Your task to perform on an android device: Open Wikipedia Image 0: 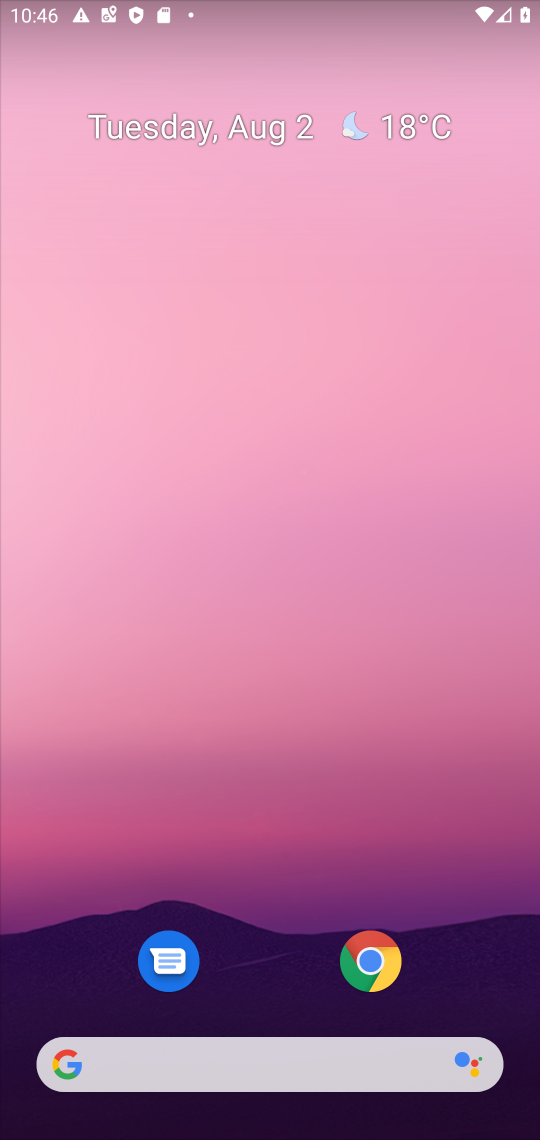
Step 0: press home button
Your task to perform on an android device: Open Wikipedia Image 1: 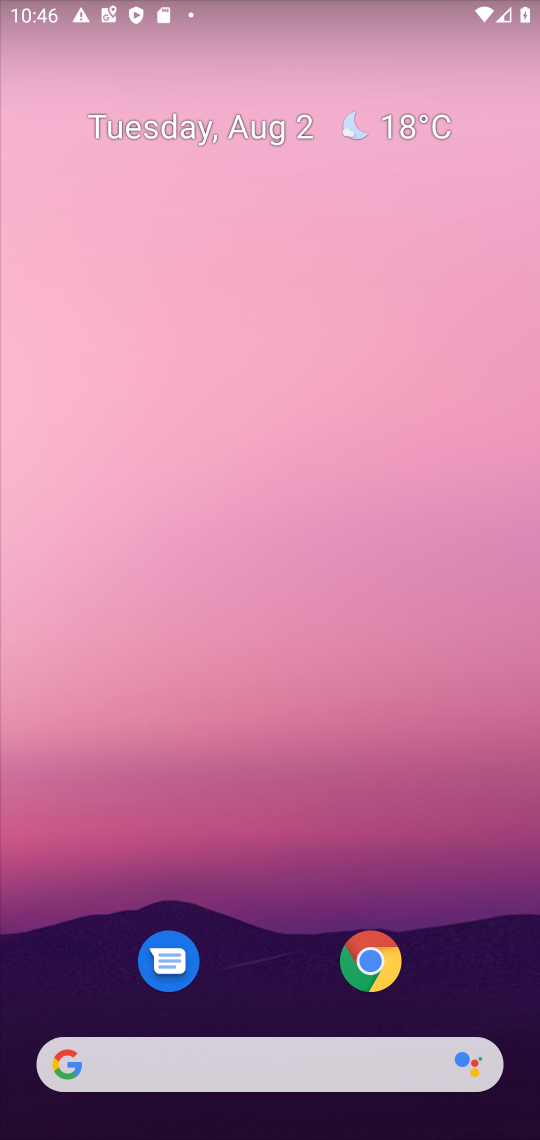
Step 1: drag from (319, 897) to (382, 90)
Your task to perform on an android device: Open Wikipedia Image 2: 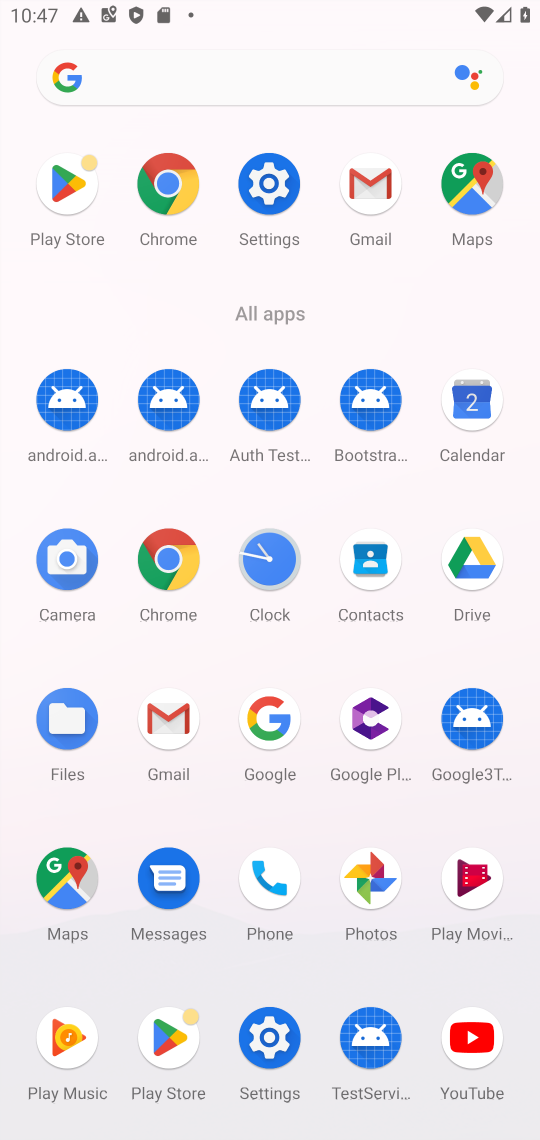
Step 2: click (181, 210)
Your task to perform on an android device: Open Wikipedia Image 3: 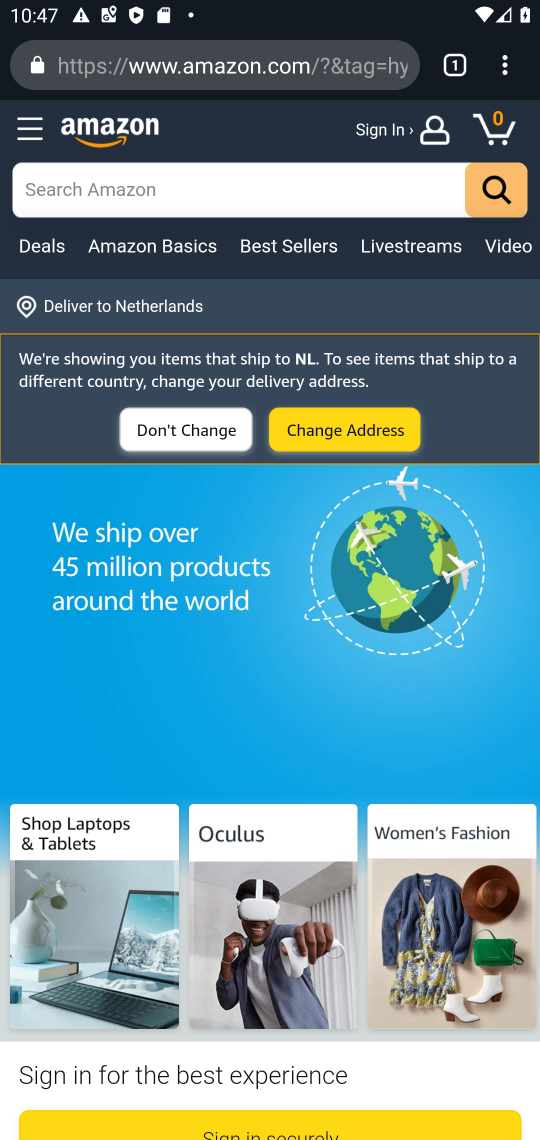
Step 3: click (252, 73)
Your task to perform on an android device: Open Wikipedia Image 4: 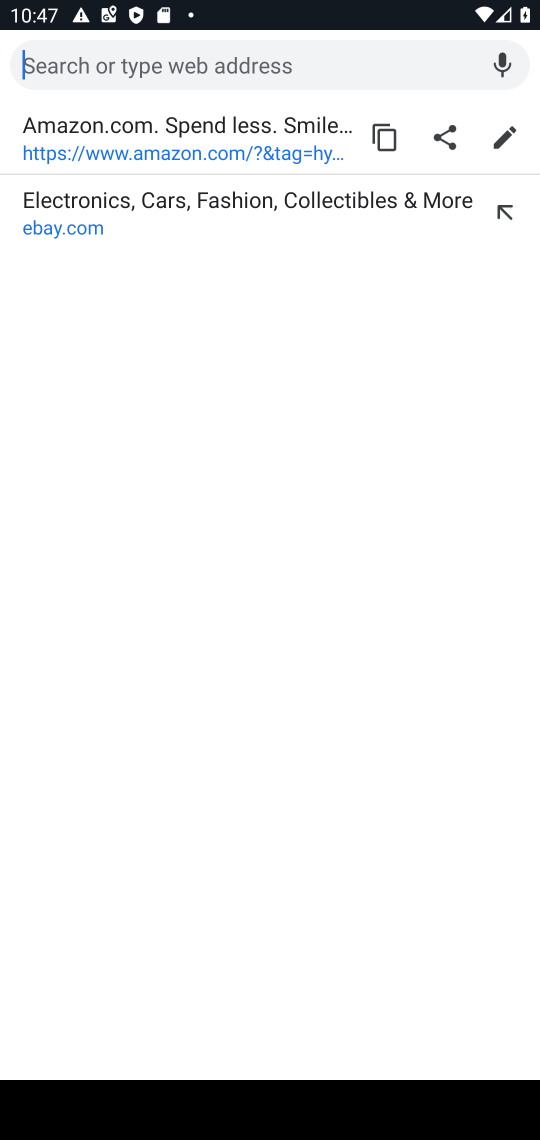
Step 4: type "Wikipedia"
Your task to perform on an android device: Open Wikipedia Image 5: 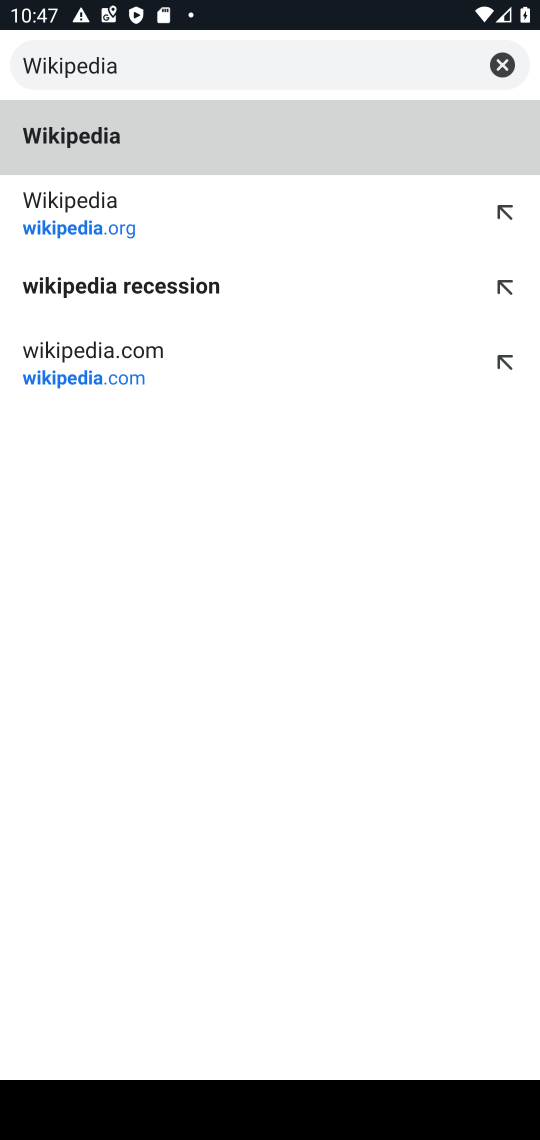
Step 5: click (81, 116)
Your task to perform on an android device: Open Wikipedia Image 6: 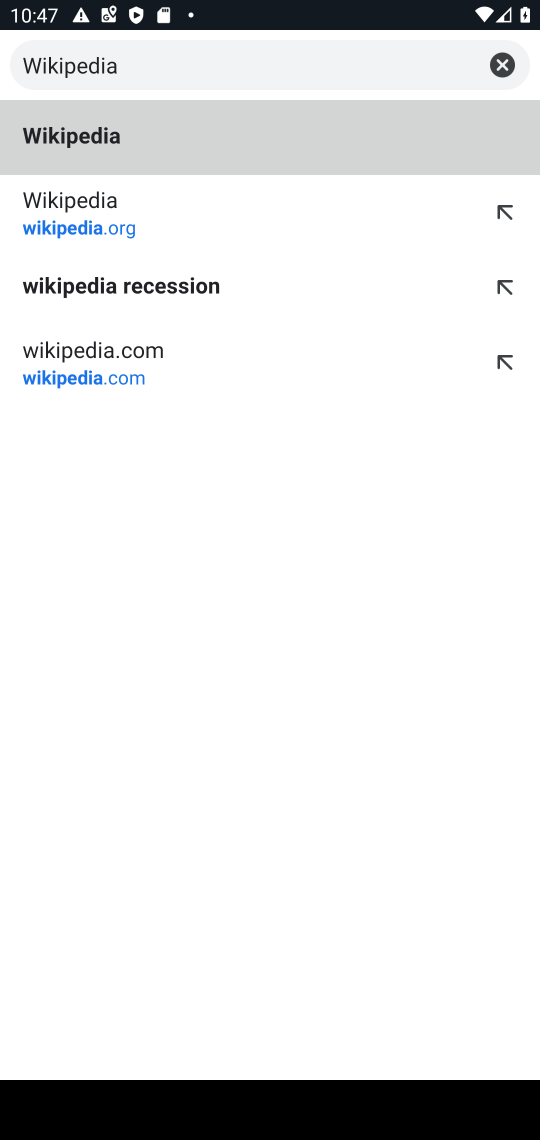
Step 6: click (81, 116)
Your task to perform on an android device: Open Wikipedia Image 7: 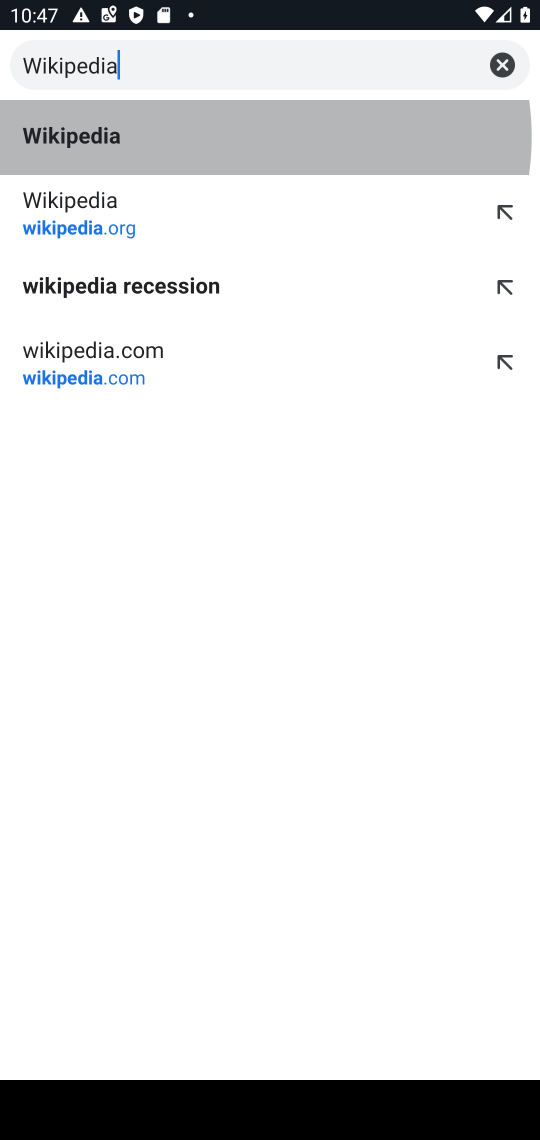
Step 7: click (81, 116)
Your task to perform on an android device: Open Wikipedia Image 8: 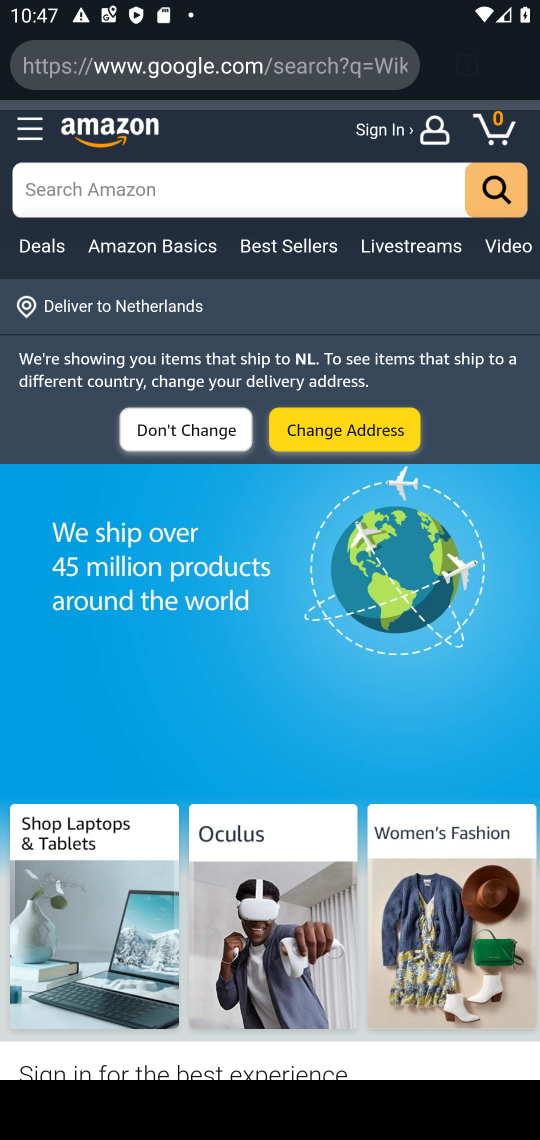
Step 8: click (81, 116)
Your task to perform on an android device: Open Wikipedia Image 9: 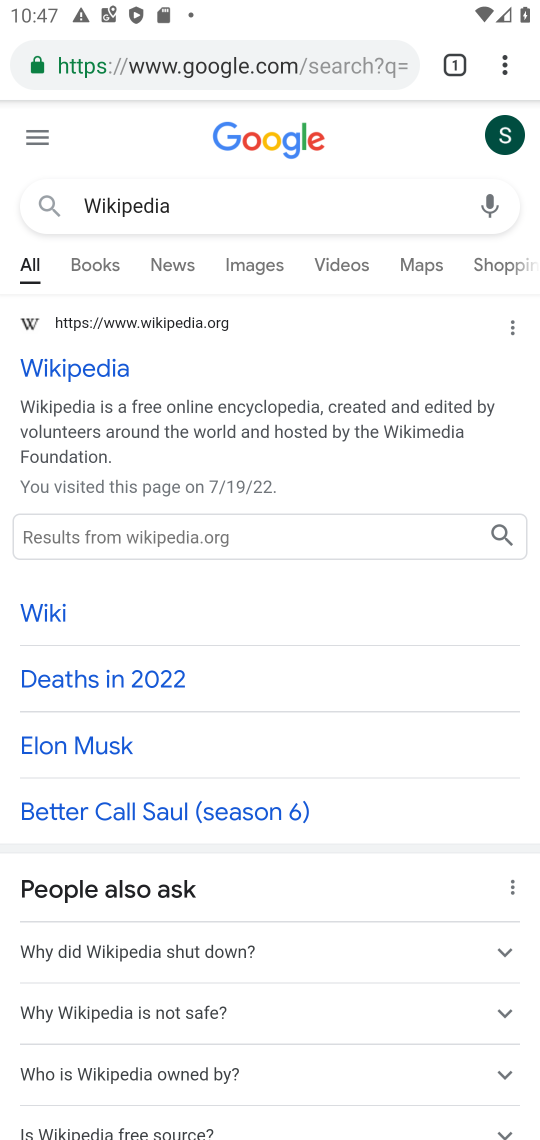
Step 9: click (74, 361)
Your task to perform on an android device: Open Wikipedia Image 10: 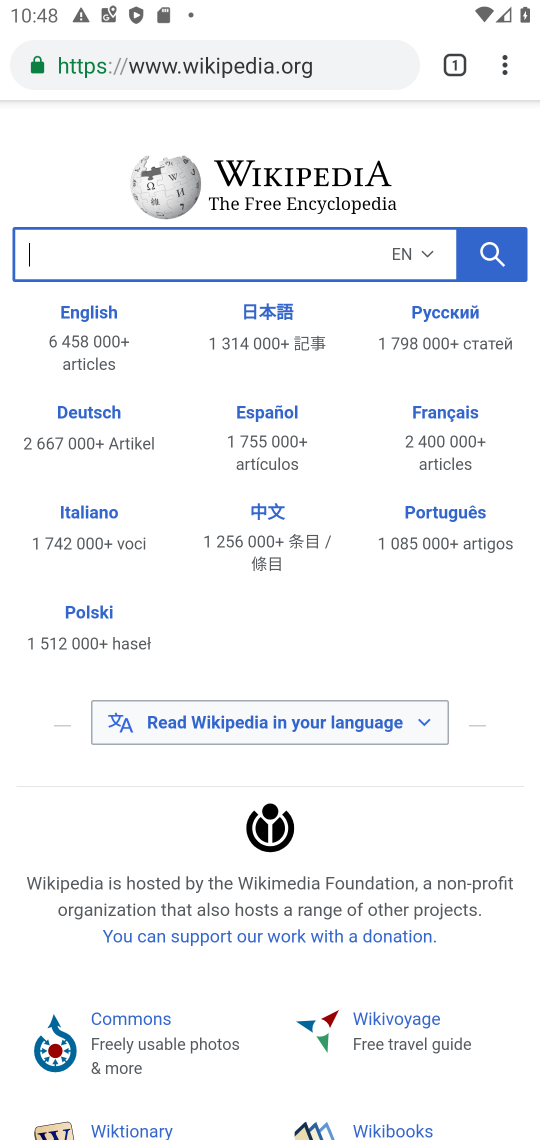
Step 10: task complete